Your task to perform on an android device: What's on my calendar today? Image 0: 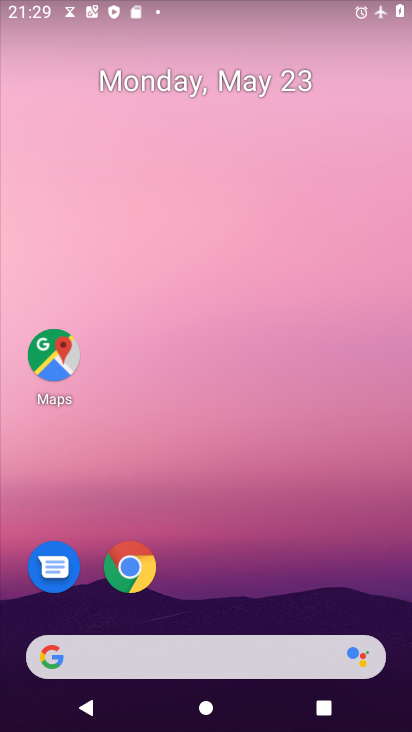
Step 0: drag from (180, 503) to (227, 265)
Your task to perform on an android device: What's on my calendar today? Image 1: 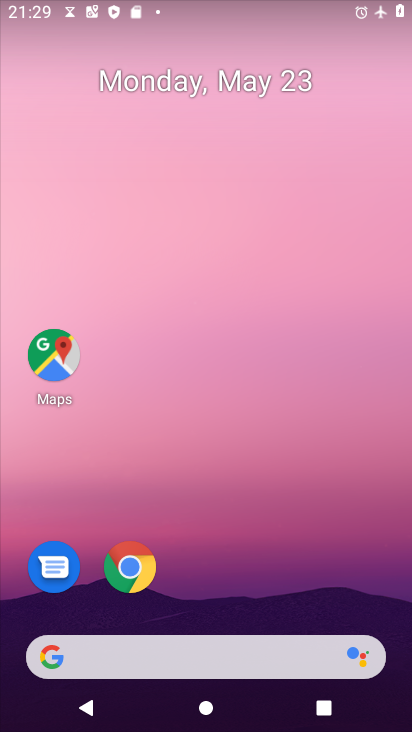
Step 1: drag from (283, 552) to (283, 297)
Your task to perform on an android device: What's on my calendar today? Image 2: 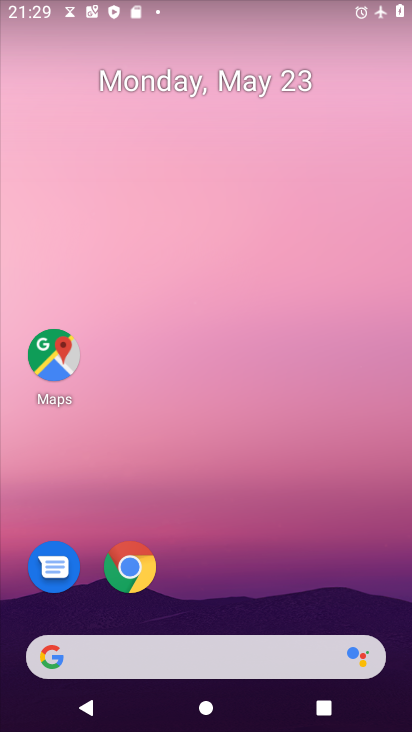
Step 2: drag from (206, 601) to (227, 105)
Your task to perform on an android device: What's on my calendar today? Image 3: 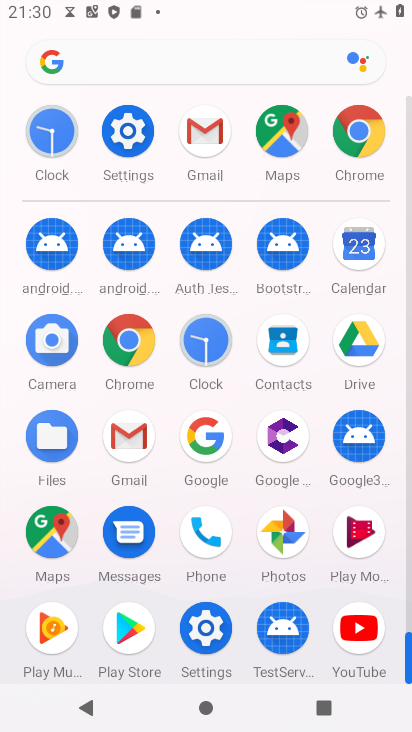
Step 3: click (357, 240)
Your task to perform on an android device: What's on my calendar today? Image 4: 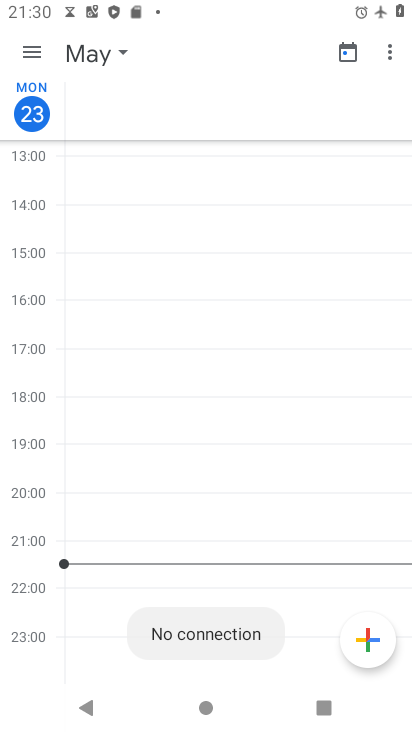
Step 4: click (27, 73)
Your task to perform on an android device: What's on my calendar today? Image 5: 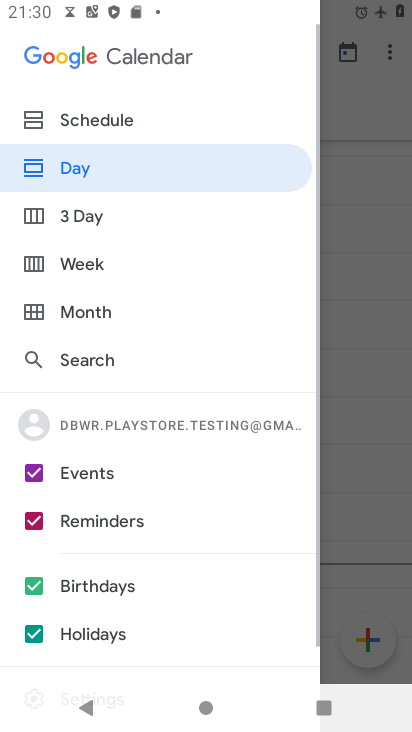
Step 5: click (76, 311)
Your task to perform on an android device: What's on my calendar today? Image 6: 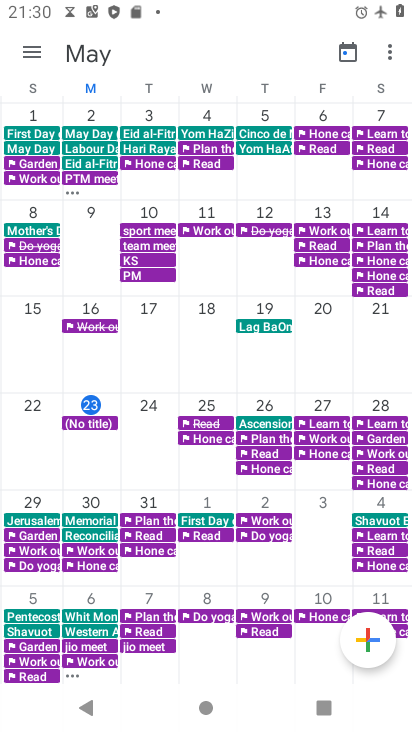
Step 6: click (148, 413)
Your task to perform on an android device: What's on my calendar today? Image 7: 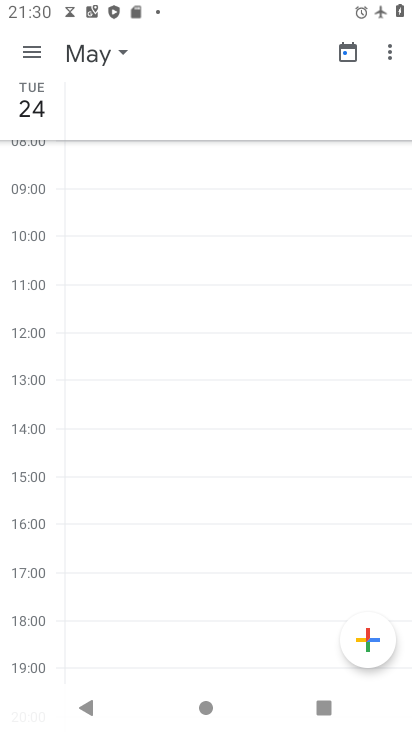
Step 7: task complete